Your task to perform on an android device: open chrome and create a bookmark for the current page Image 0: 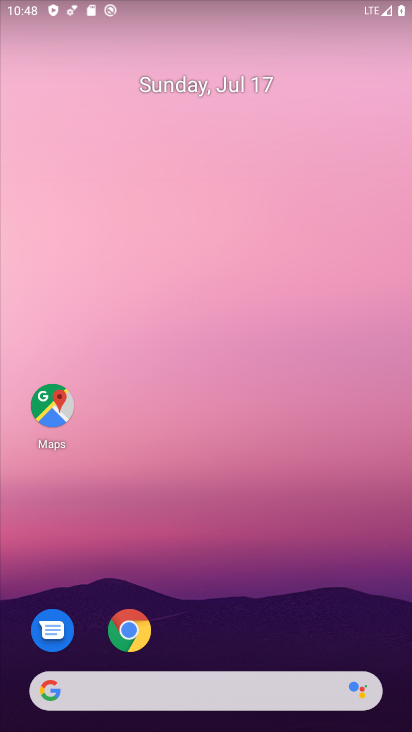
Step 0: click (126, 631)
Your task to perform on an android device: open chrome and create a bookmark for the current page Image 1: 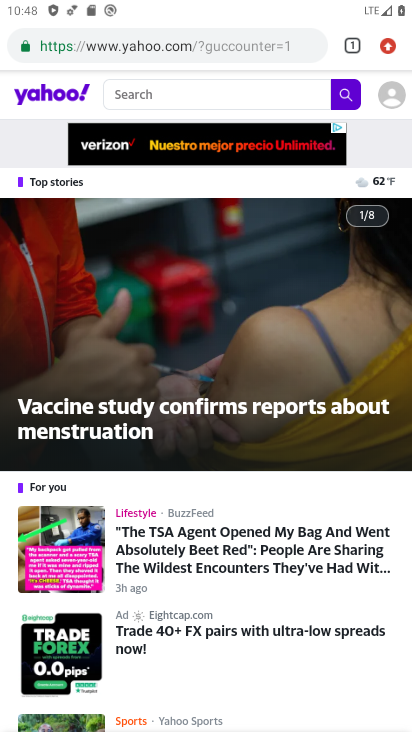
Step 1: task complete